Your task to perform on an android device: install app "Duolingo: language lessons" Image 0: 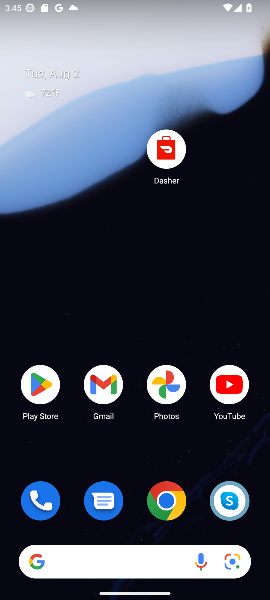
Step 0: click (35, 399)
Your task to perform on an android device: install app "Duolingo: language lessons" Image 1: 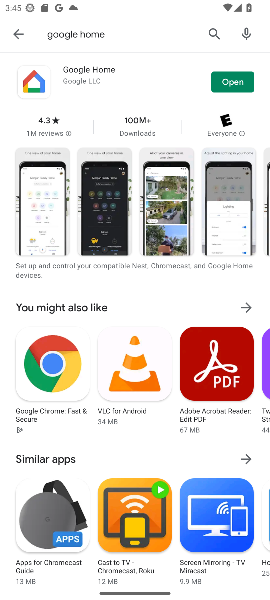
Step 1: click (207, 29)
Your task to perform on an android device: install app "Duolingo: language lessons" Image 2: 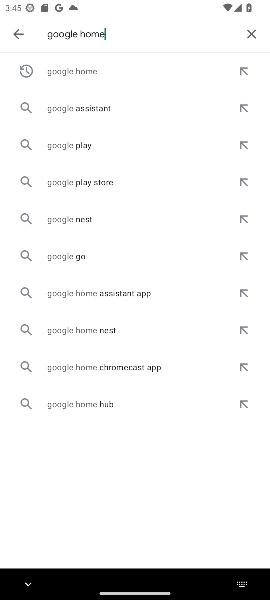
Step 2: click (248, 32)
Your task to perform on an android device: install app "Duolingo: language lessons" Image 3: 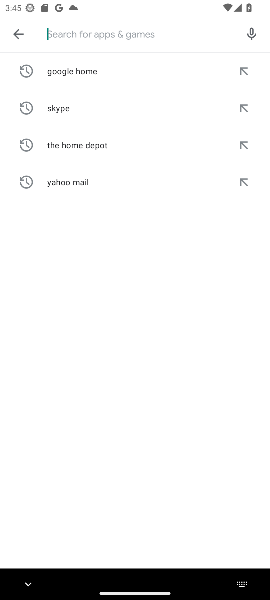
Step 3: type "Duolingo: language lessons"
Your task to perform on an android device: install app "Duolingo: language lessons" Image 4: 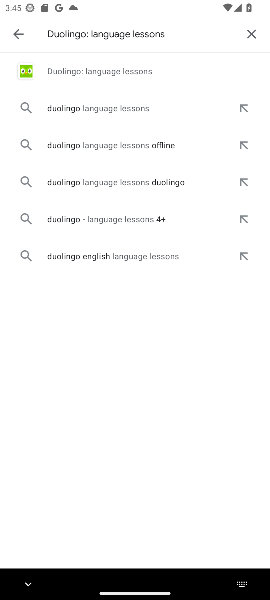
Step 4: click (100, 75)
Your task to perform on an android device: install app "Duolingo: language lessons" Image 5: 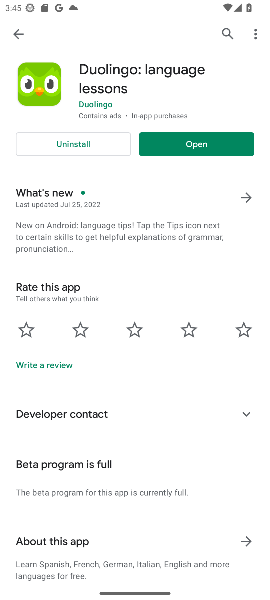
Step 5: task complete